Your task to perform on an android device: Open battery settings Image 0: 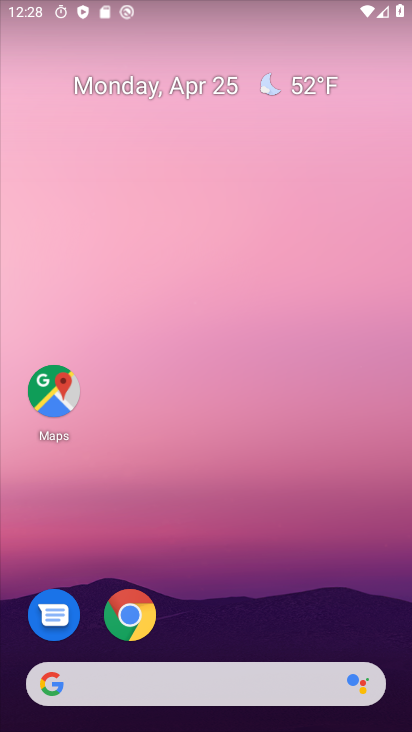
Step 0: drag from (190, 641) to (188, 0)
Your task to perform on an android device: Open battery settings Image 1: 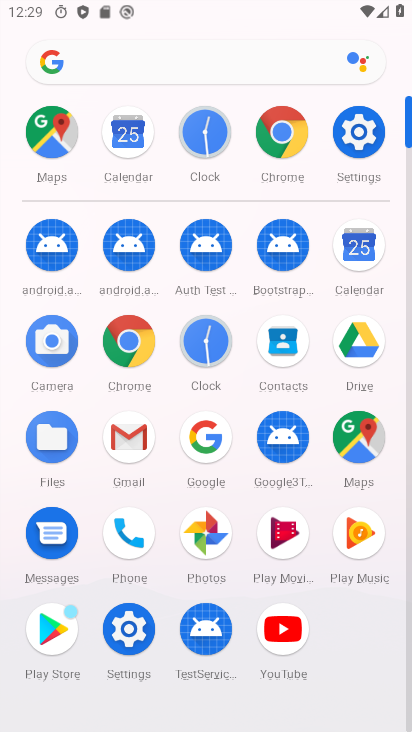
Step 1: click (349, 131)
Your task to perform on an android device: Open battery settings Image 2: 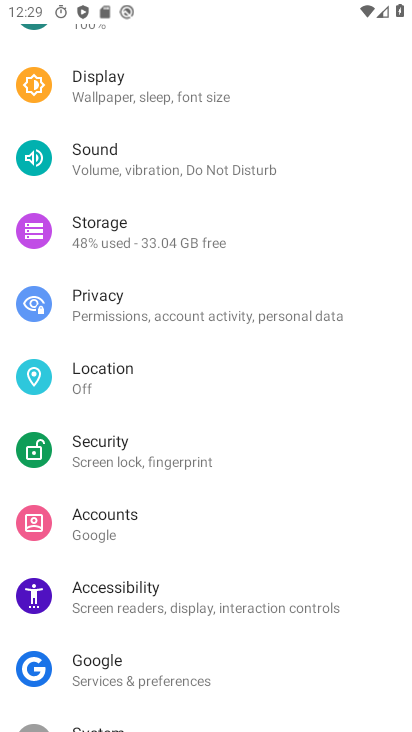
Step 2: drag from (166, 179) to (175, 409)
Your task to perform on an android device: Open battery settings Image 3: 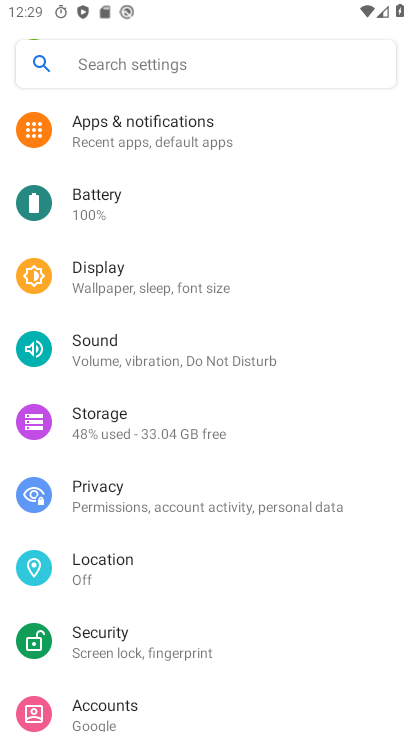
Step 3: click (103, 194)
Your task to perform on an android device: Open battery settings Image 4: 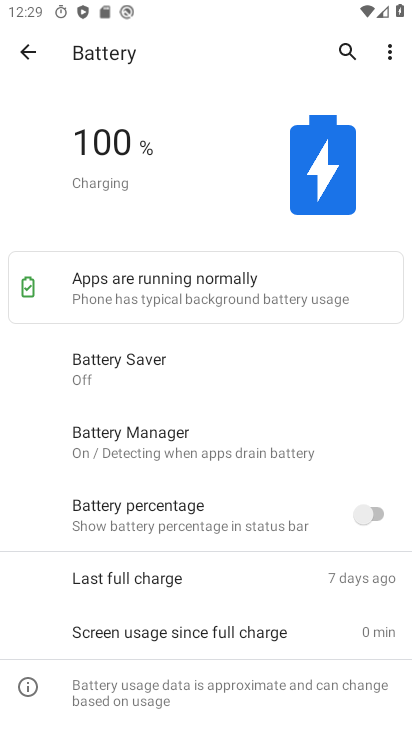
Step 4: task complete